Your task to perform on an android device: Go to sound settings Image 0: 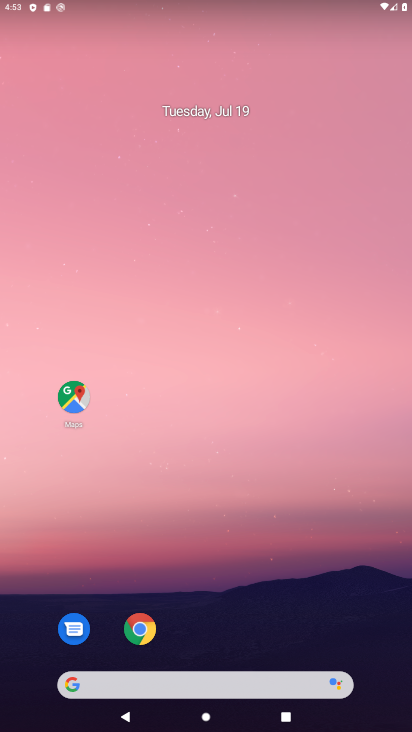
Step 0: press home button
Your task to perform on an android device: Go to sound settings Image 1: 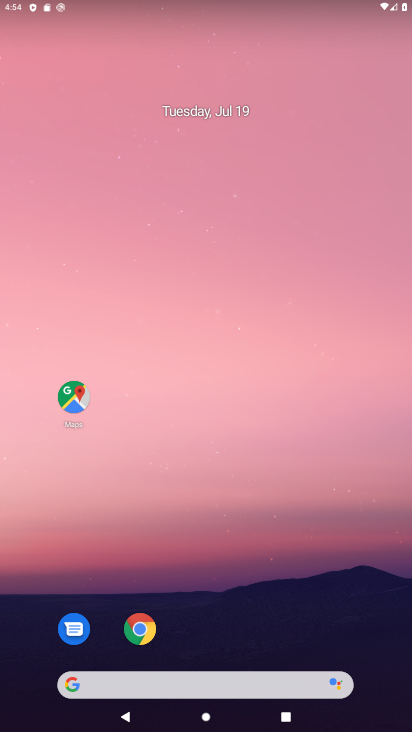
Step 1: drag from (248, 589) to (235, 51)
Your task to perform on an android device: Go to sound settings Image 2: 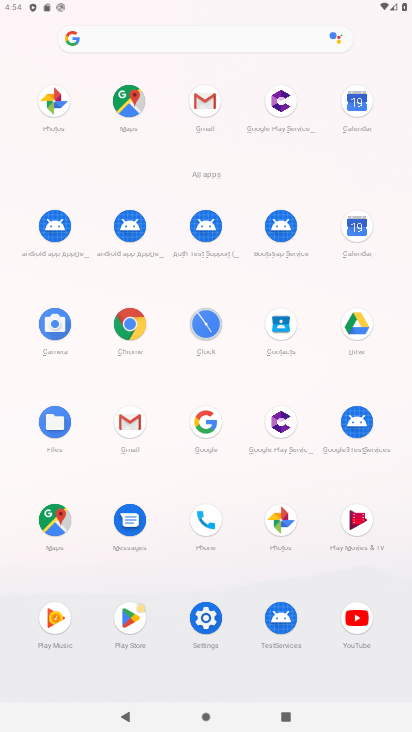
Step 2: click (209, 607)
Your task to perform on an android device: Go to sound settings Image 3: 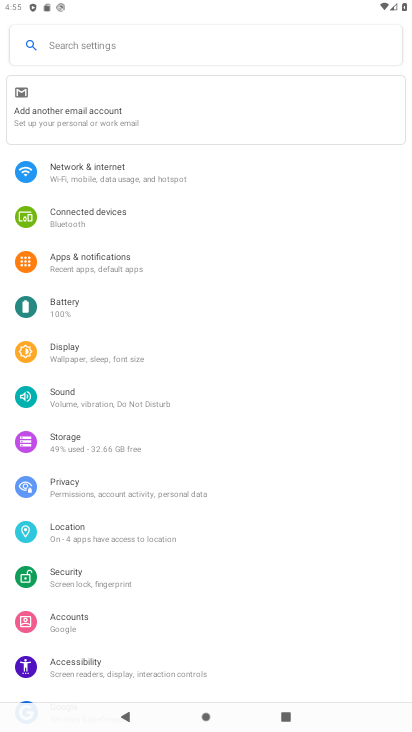
Step 3: click (58, 399)
Your task to perform on an android device: Go to sound settings Image 4: 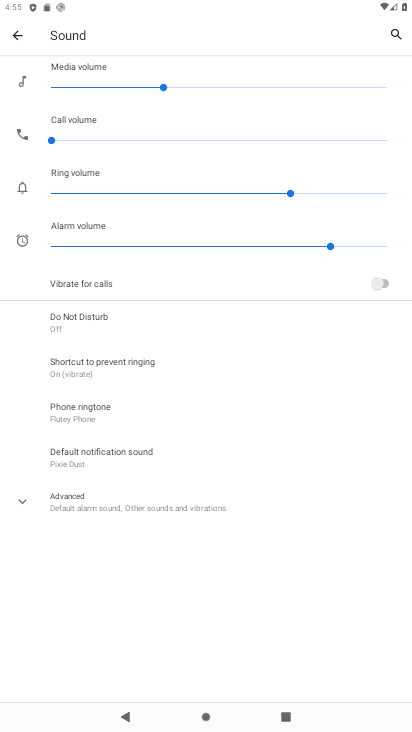
Step 4: task complete